Your task to perform on an android device: Open wifi settings Image 0: 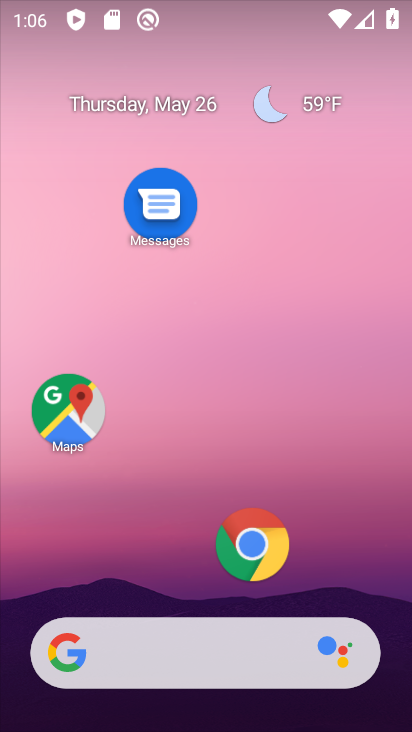
Step 0: click (230, 74)
Your task to perform on an android device: Open wifi settings Image 1: 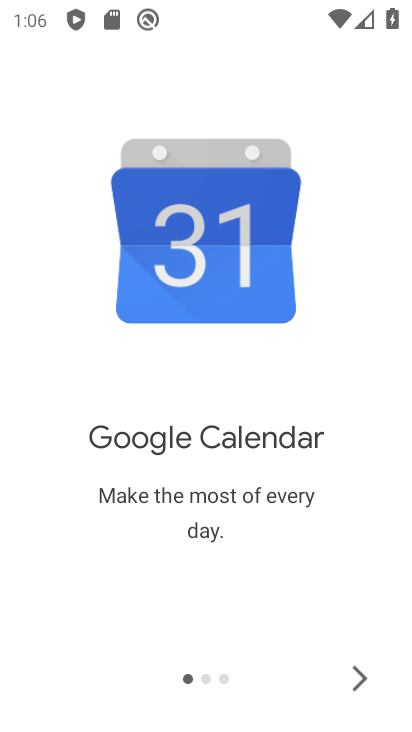
Step 1: drag from (207, 11) to (107, 688)
Your task to perform on an android device: Open wifi settings Image 2: 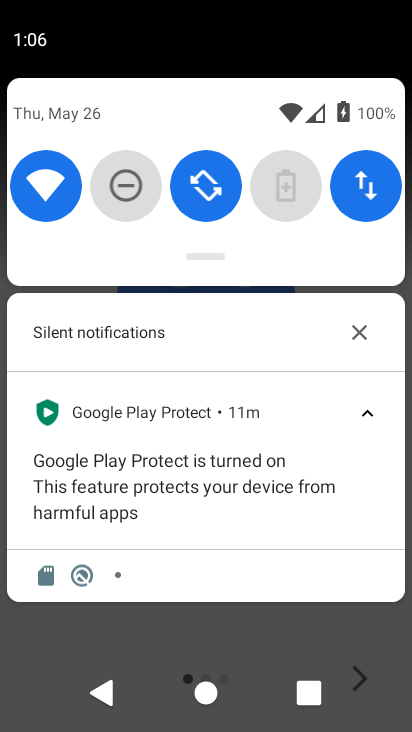
Step 2: click (55, 218)
Your task to perform on an android device: Open wifi settings Image 3: 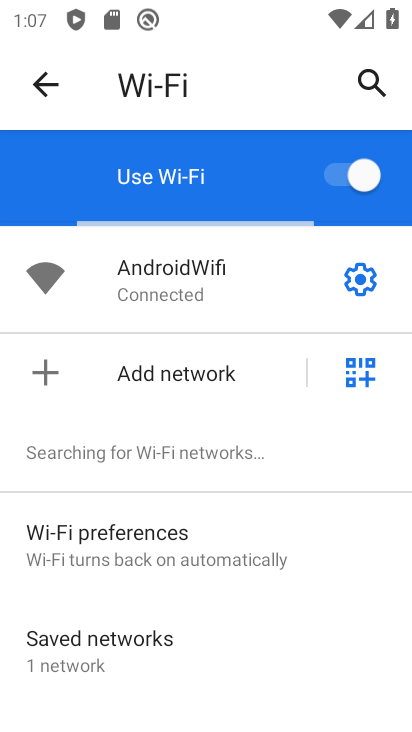
Step 3: task complete